Your task to perform on an android device: open a bookmark in the chrome app Image 0: 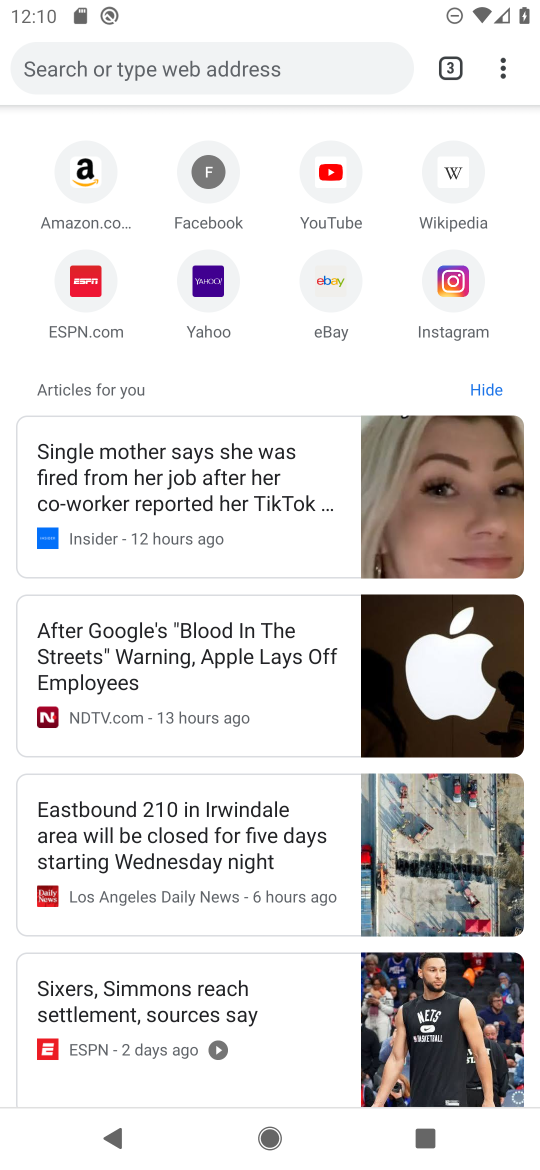
Step 0: click (517, 63)
Your task to perform on an android device: open a bookmark in the chrome app Image 1: 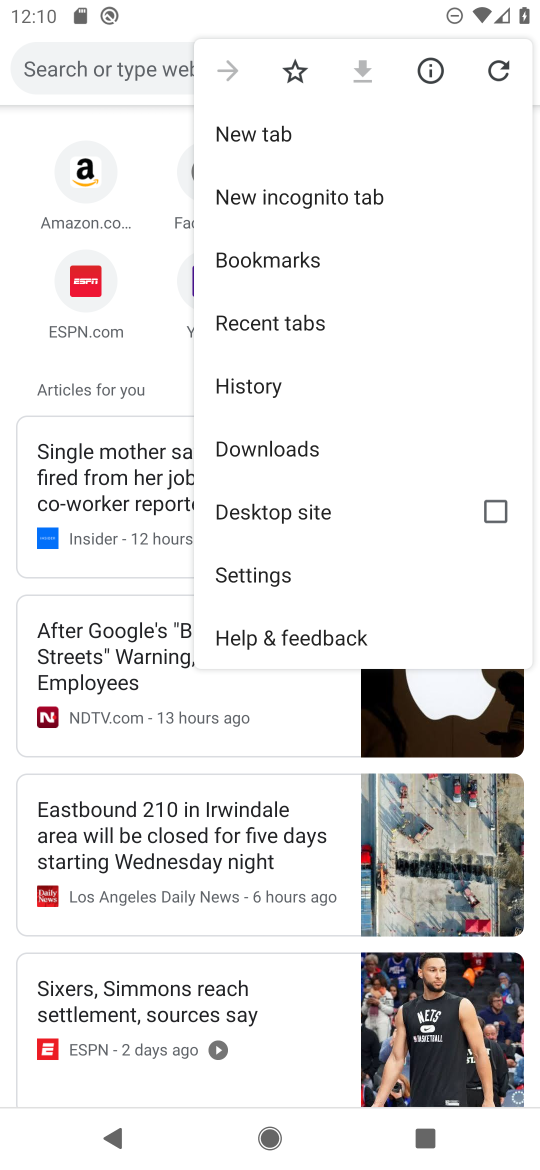
Step 1: click (351, 254)
Your task to perform on an android device: open a bookmark in the chrome app Image 2: 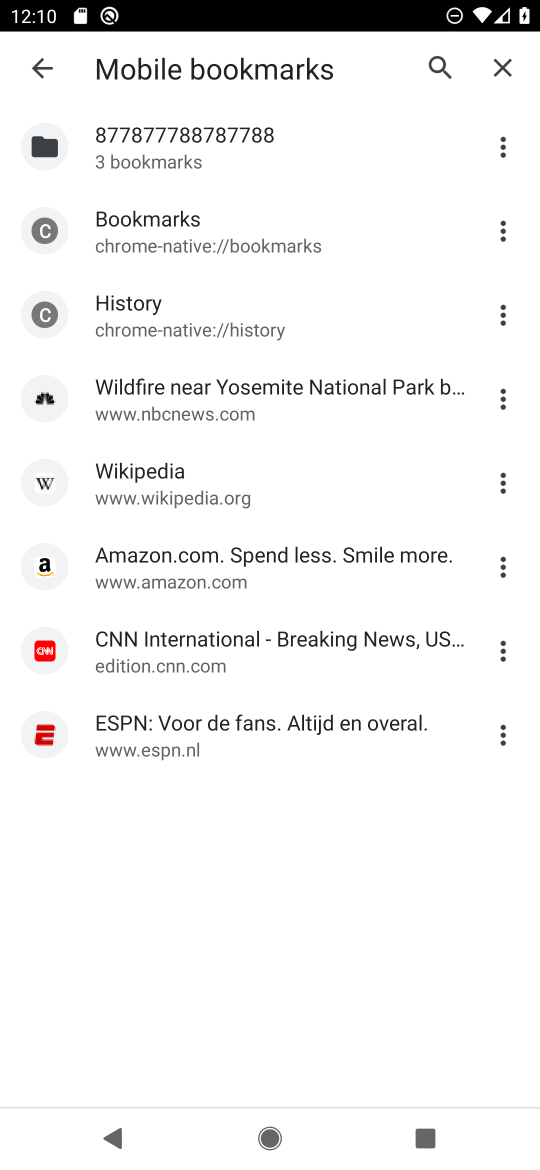
Step 2: click (263, 404)
Your task to perform on an android device: open a bookmark in the chrome app Image 3: 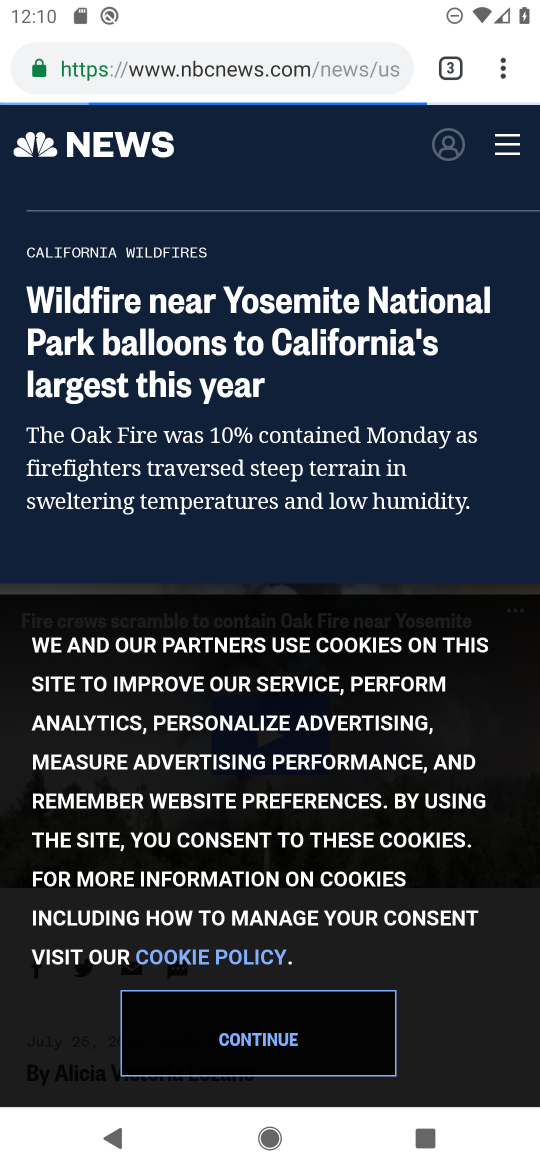
Step 3: task complete